Your task to perform on an android device: check battery use Image 0: 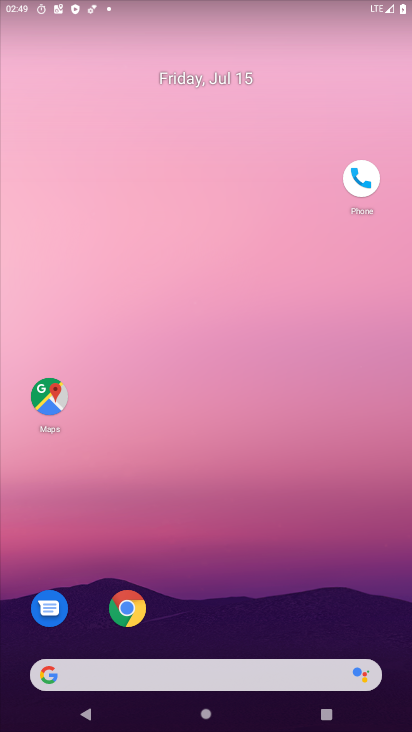
Step 0: drag from (204, 414) to (254, 21)
Your task to perform on an android device: check battery use Image 1: 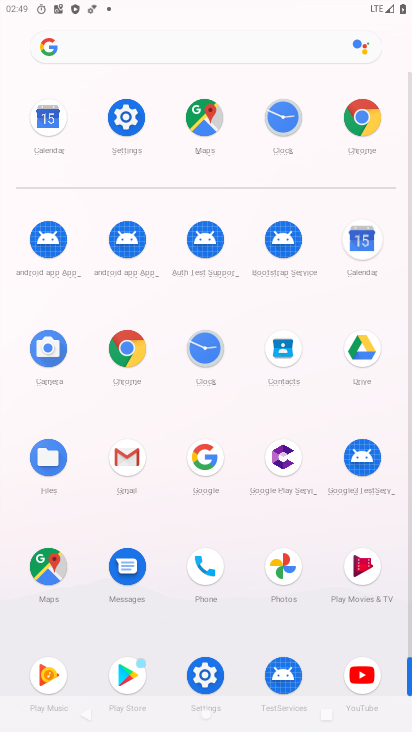
Step 1: click (263, 206)
Your task to perform on an android device: check battery use Image 2: 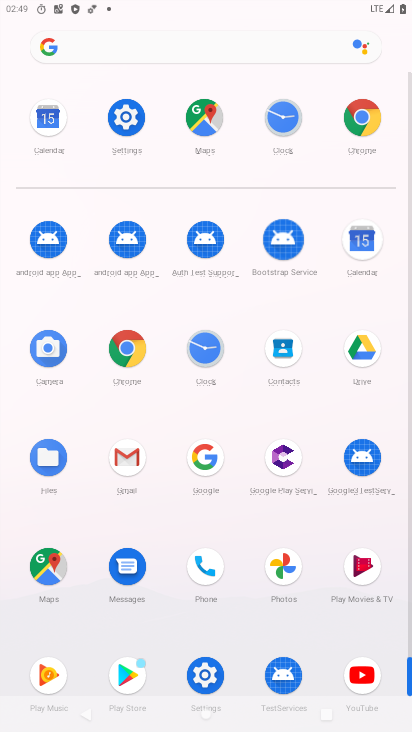
Step 2: drag from (206, 571) to (285, 217)
Your task to perform on an android device: check battery use Image 3: 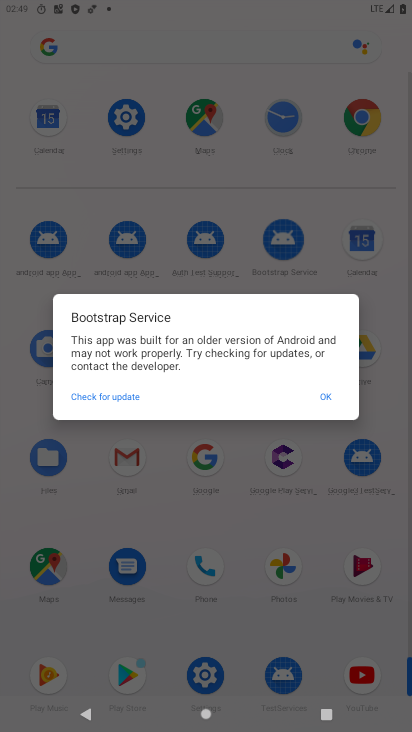
Step 3: click (201, 678)
Your task to perform on an android device: check battery use Image 4: 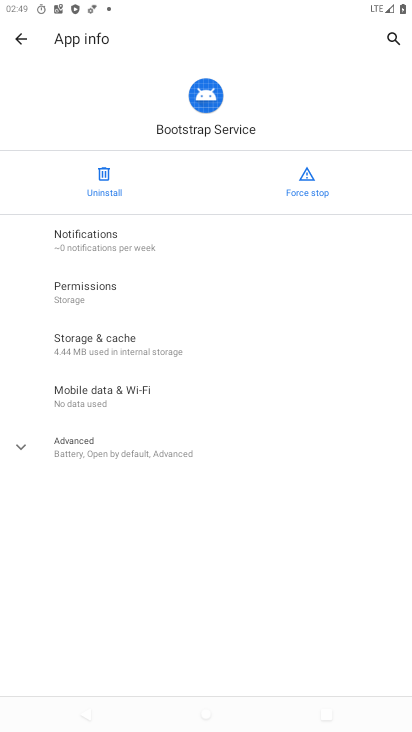
Step 4: click (27, 40)
Your task to perform on an android device: check battery use Image 5: 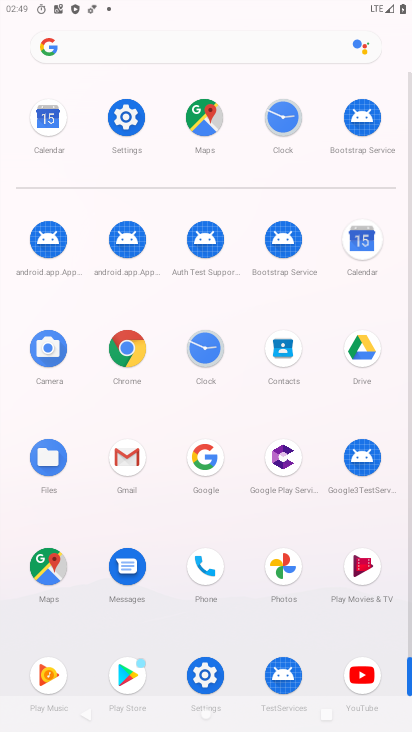
Step 5: click (118, 114)
Your task to perform on an android device: check battery use Image 6: 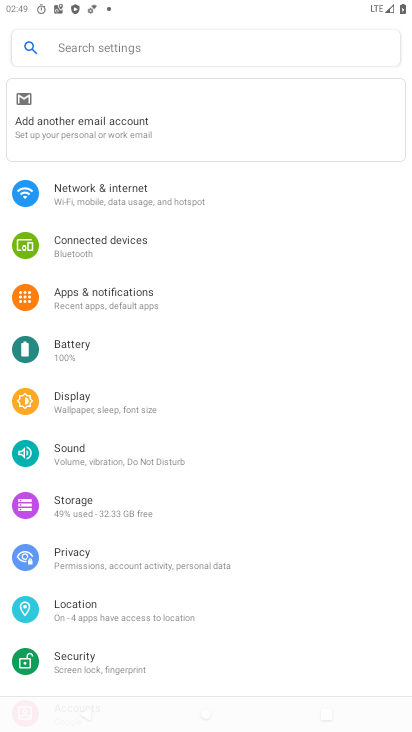
Step 6: click (87, 346)
Your task to perform on an android device: check battery use Image 7: 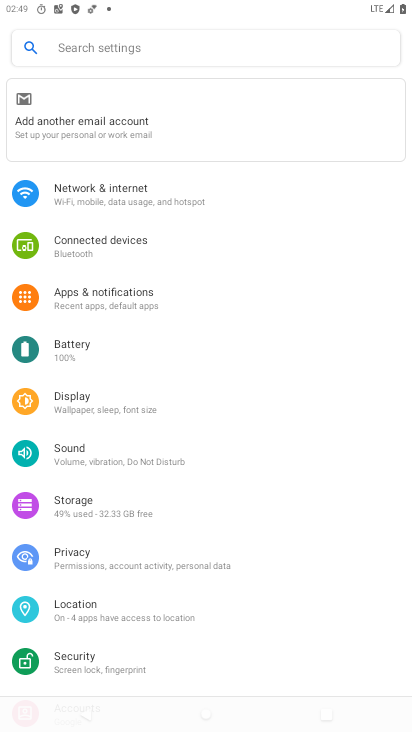
Step 7: click (87, 346)
Your task to perform on an android device: check battery use Image 8: 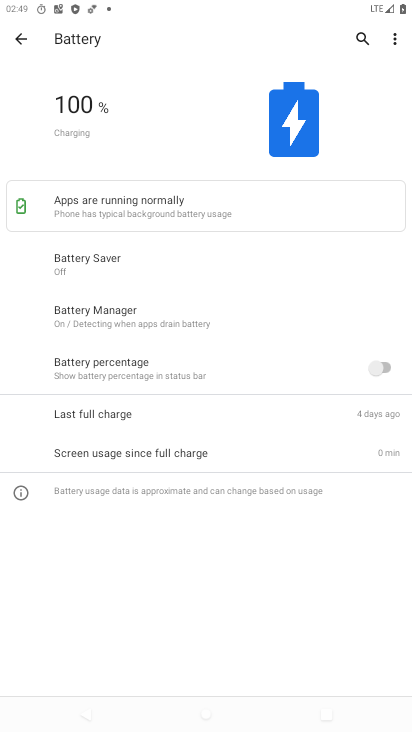
Step 8: click (389, 44)
Your task to perform on an android device: check battery use Image 9: 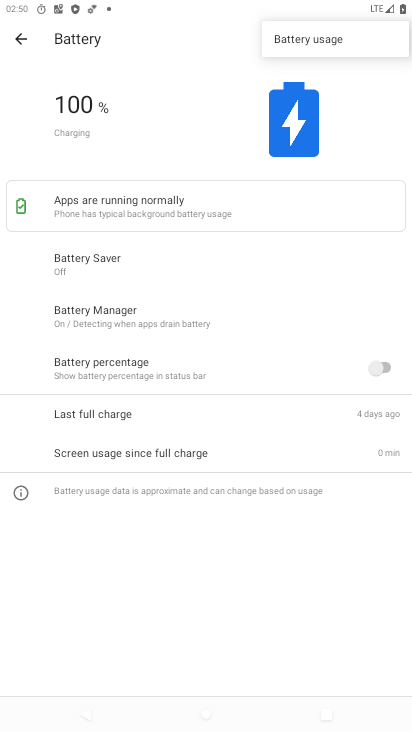
Step 9: click (335, 33)
Your task to perform on an android device: check battery use Image 10: 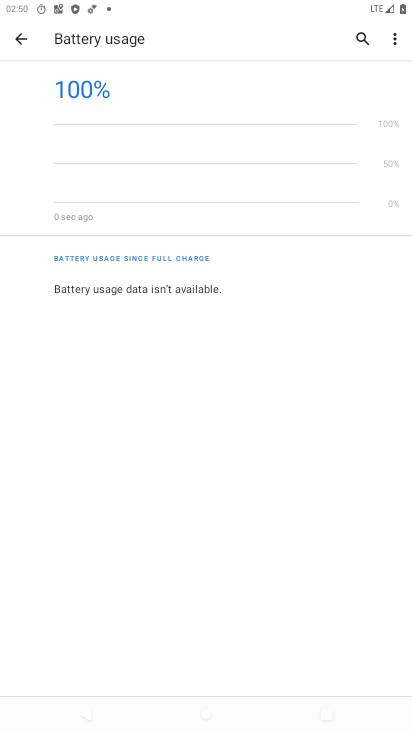
Step 10: drag from (203, 532) to (182, 214)
Your task to perform on an android device: check battery use Image 11: 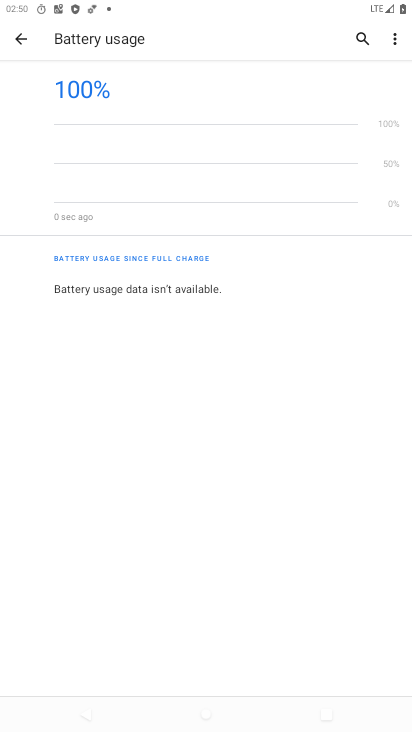
Step 11: click (213, 160)
Your task to perform on an android device: check battery use Image 12: 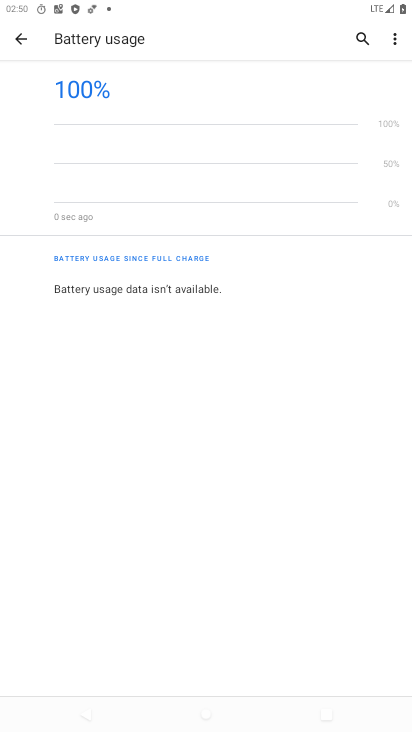
Step 12: task complete